Your task to perform on an android device: move a message to another label in the gmail app Image 0: 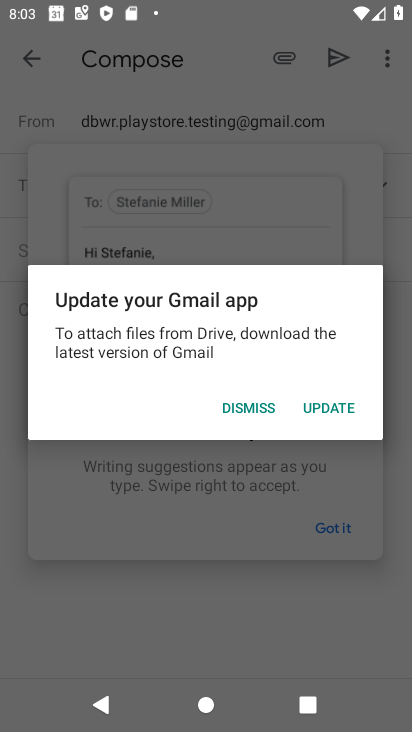
Step 0: press home button
Your task to perform on an android device: move a message to another label in the gmail app Image 1: 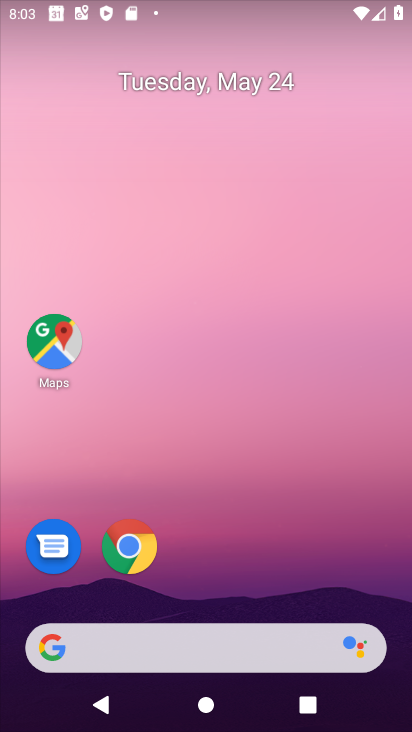
Step 1: drag from (261, 546) to (226, 17)
Your task to perform on an android device: move a message to another label in the gmail app Image 2: 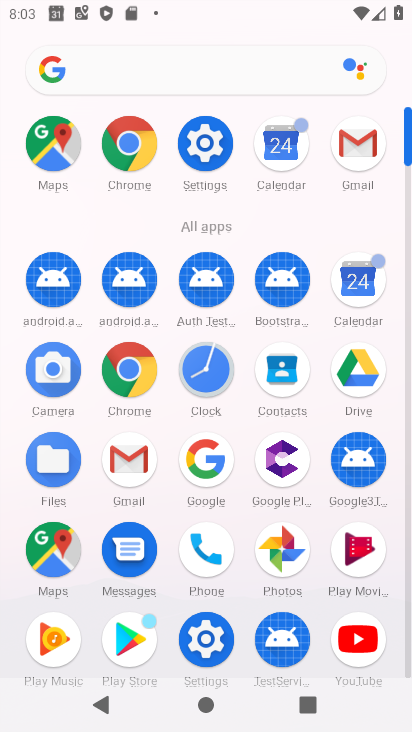
Step 2: click (348, 141)
Your task to perform on an android device: move a message to another label in the gmail app Image 3: 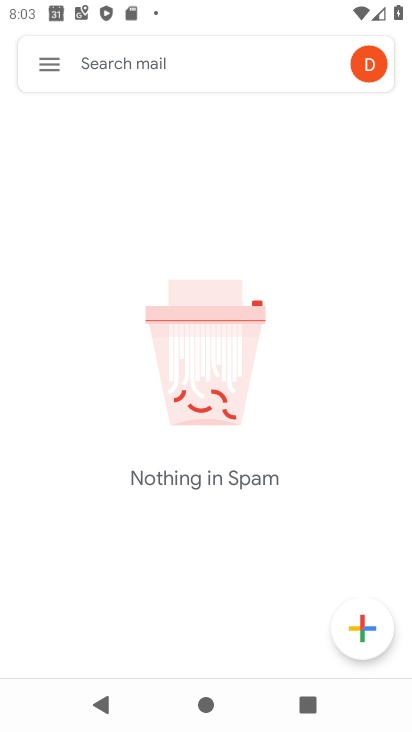
Step 3: click (51, 67)
Your task to perform on an android device: move a message to another label in the gmail app Image 4: 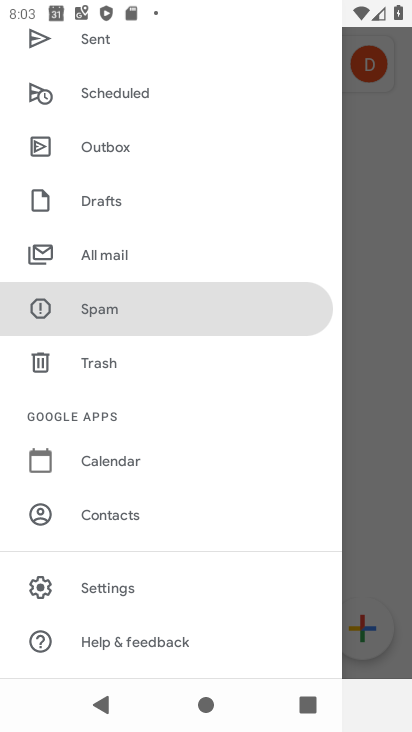
Step 4: click (109, 249)
Your task to perform on an android device: move a message to another label in the gmail app Image 5: 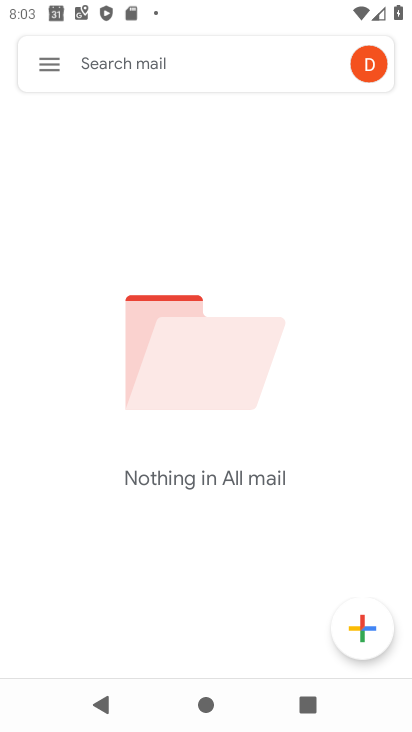
Step 5: task complete